Your task to perform on an android device: Turn off the flashlight Image 0: 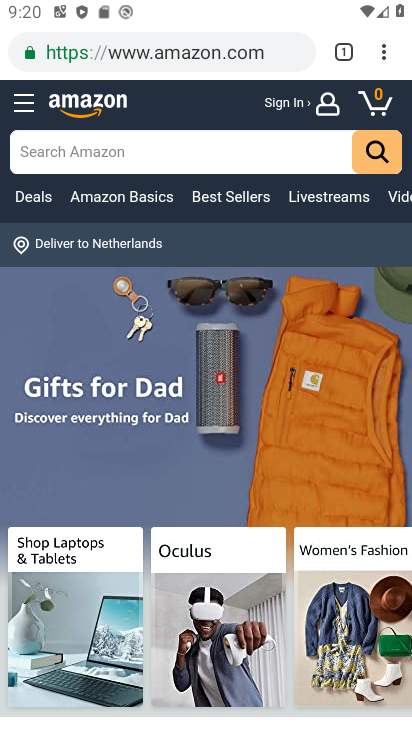
Step 0: drag from (195, 9) to (174, 287)
Your task to perform on an android device: Turn off the flashlight Image 1: 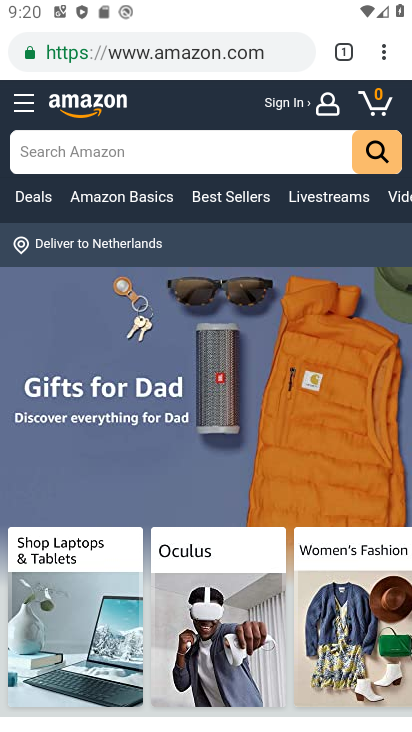
Step 1: task complete